Your task to perform on an android device: turn vacation reply on in the gmail app Image 0: 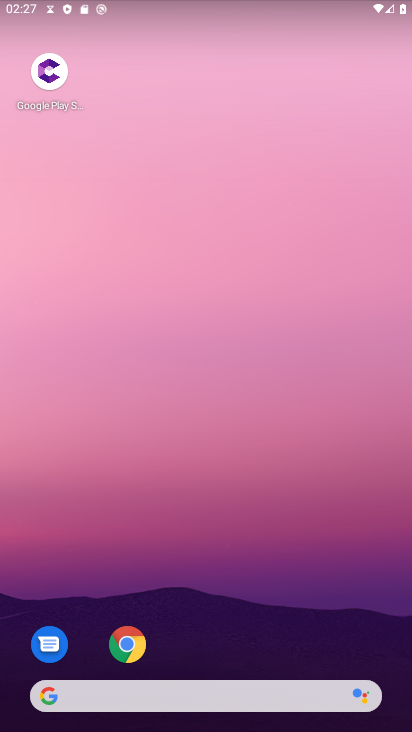
Step 0: drag from (232, 614) to (150, 169)
Your task to perform on an android device: turn vacation reply on in the gmail app Image 1: 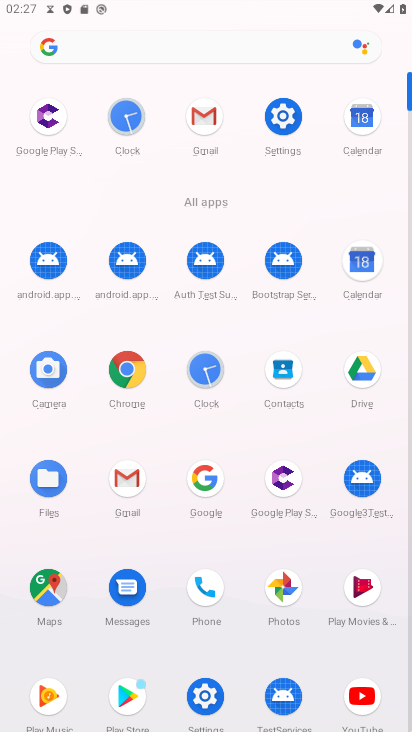
Step 1: click (125, 483)
Your task to perform on an android device: turn vacation reply on in the gmail app Image 2: 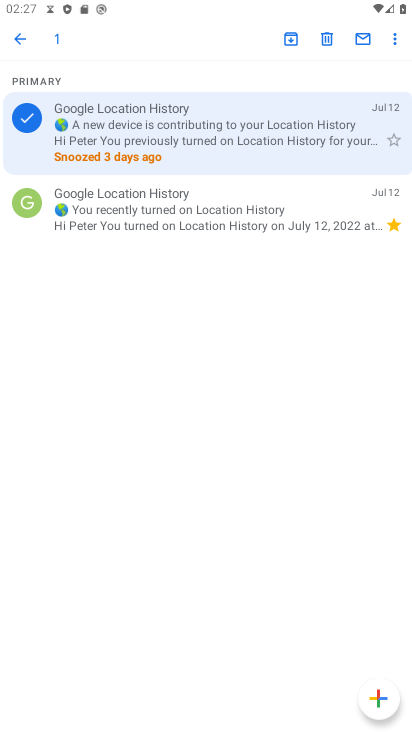
Step 2: click (9, 35)
Your task to perform on an android device: turn vacation reply on in the gmail app Image 3: 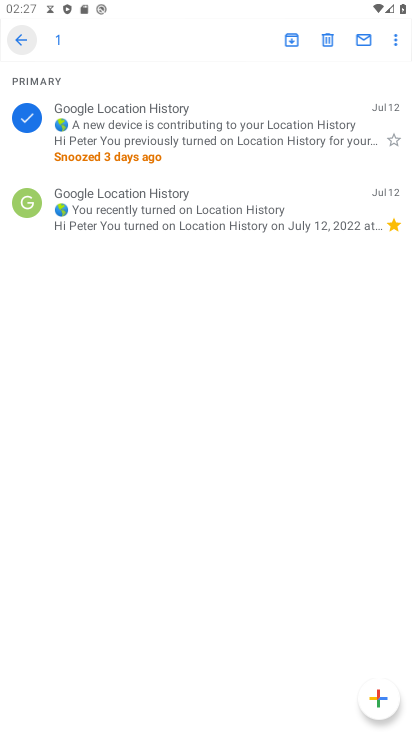
Step 3: click (17, 35)
Your task to perform on an android device: turn vacation reply on in the gmail app Image 4: 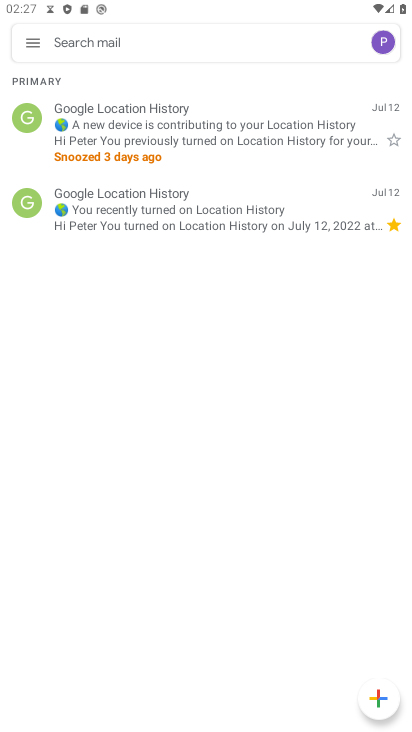
Step 4: drag from (30, 43) to (92, 466)
Your task to perform on an android device: turn vacation reply on in the gmail app Image 5: 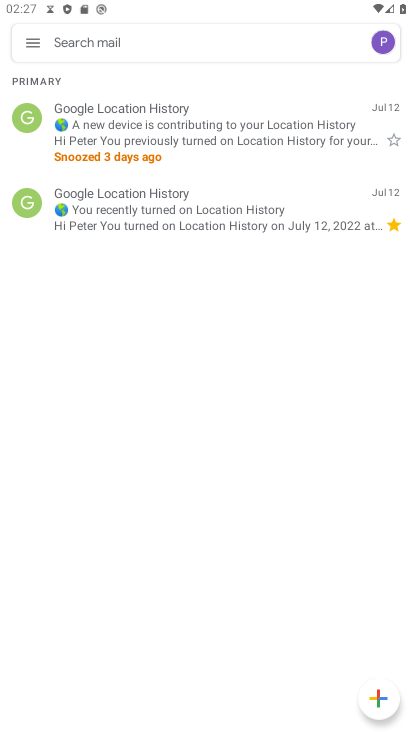
Step 5: click (32, 36)
Your task to perform on an android device: turn vacation reply on in the gmail app Image 6: 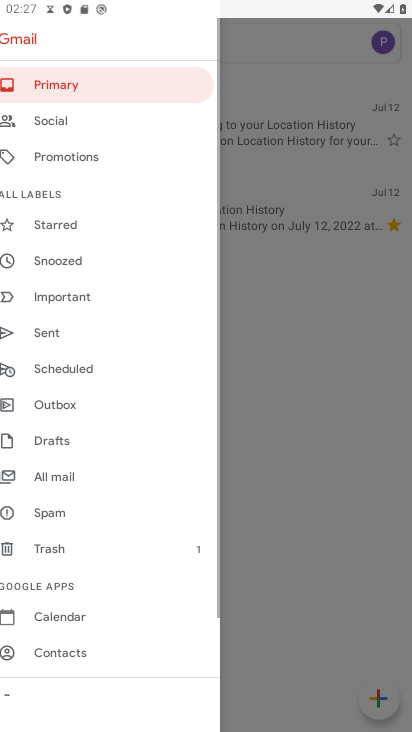
Step 6: click (29, 56)
Your task to perform on an android device: turn vacation reply on in the gmail app Image 7: 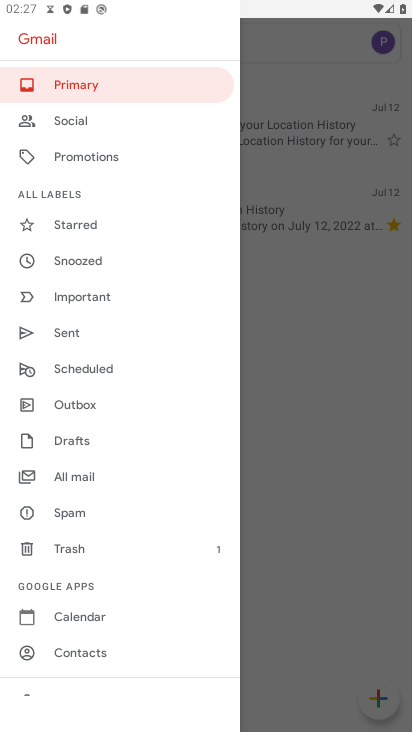
Step 7: drag from (76, 620) to (75, 248)
Your task to perform on an android device: turn vacation reply on in the gmail app Image 8: 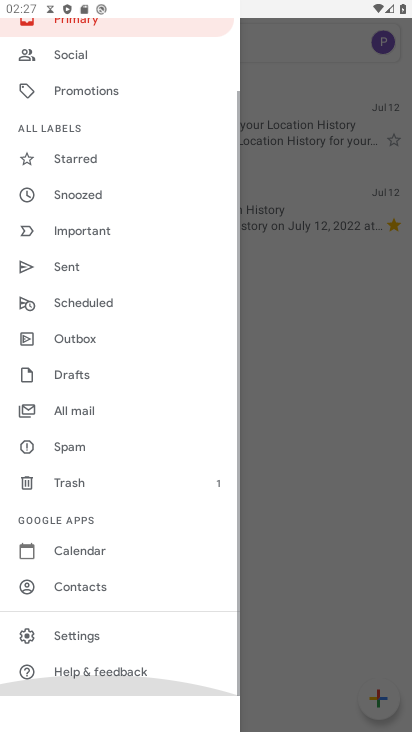
Step 8: drag from (71, 577) to (70, 314)
Your task to perform on an android device: turn vacation reply on in the gmail app Image 9: 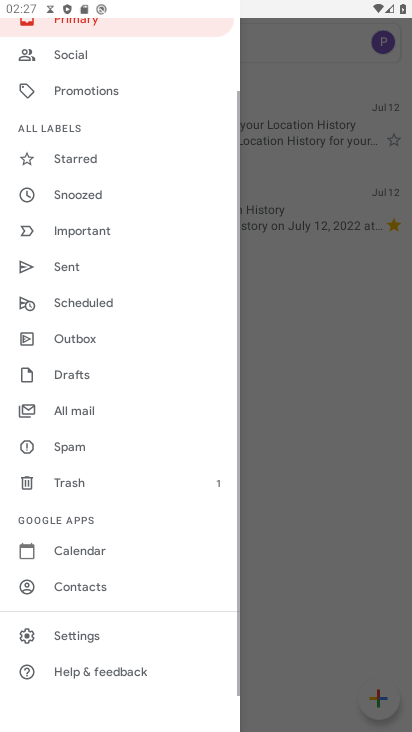
Step 9: click (84, 640)
Your task to perform on an android device: turn vacation reply on in the gmail app Image 10: 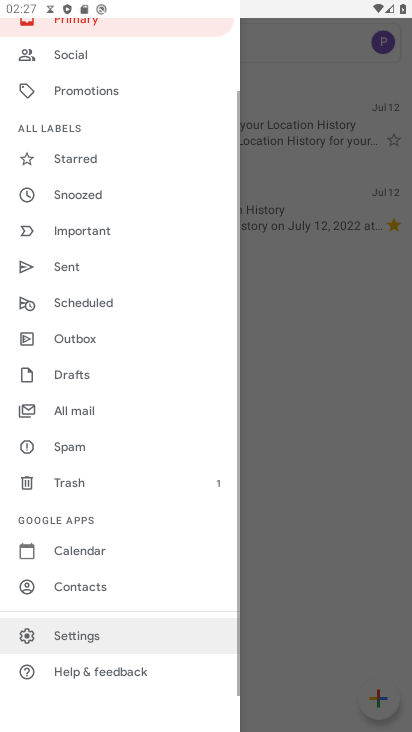
Step 10: click (78, 634)
Your task to perform on an android device: turn vacation reply on in the gmail app Image 11: 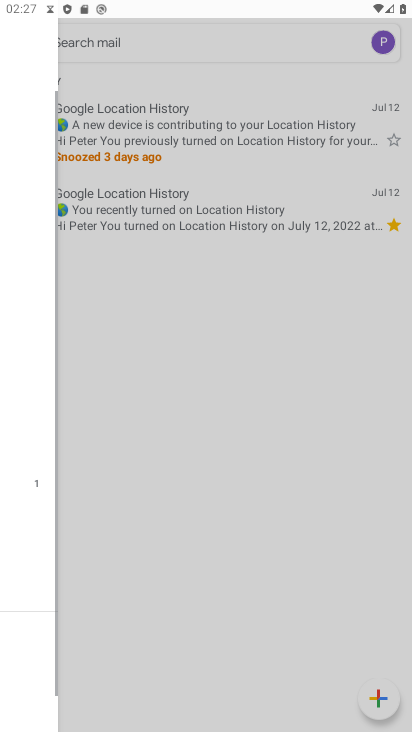
Step 11: click (78, 634)
Your task to perform on an android device: turn vacation reply on in the gmail app Image 12: 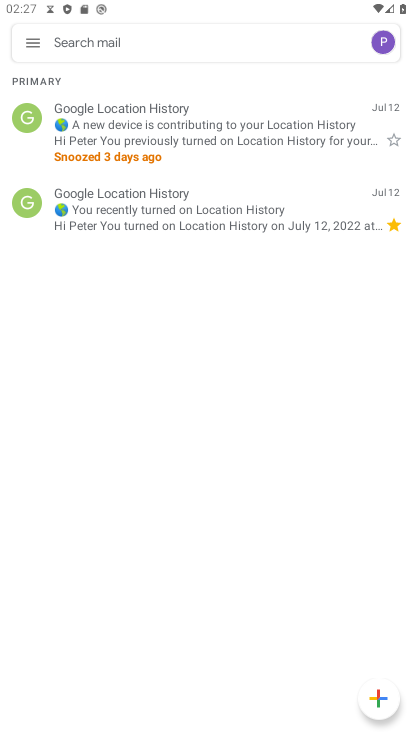
Step 12: click (78, 634)
Your task to perform on an android device: turn vacation reply on in the gmail app Image 13: 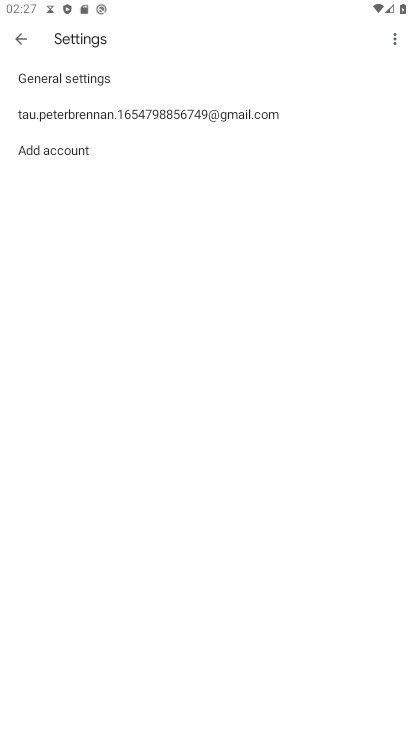
Step 13: click (136, 123)
Your task to perform on an android device: turn vacation reply on in the gmail app Image 14: 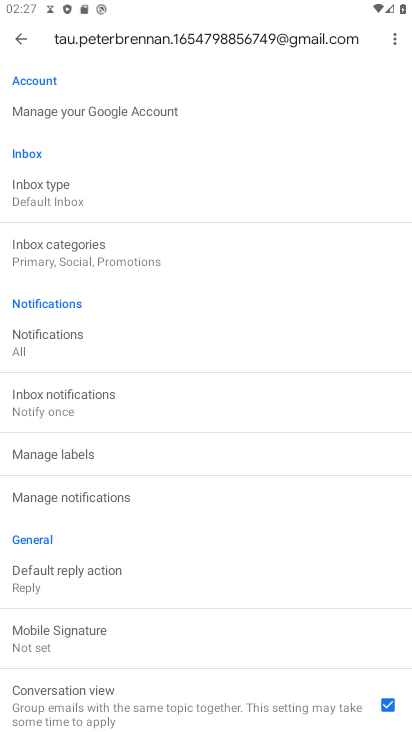
Step 14: drag from (84, 655) to (59, 330)
Your task to perform on an android device: turn vacation reply on in the gmail app Image 15: 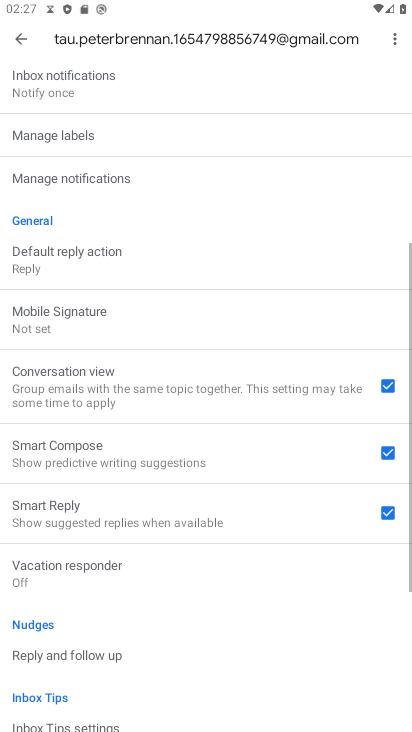
Step 15: drag from (100, 561) to (99, 381)
Your task to perform on an android device: turn vacation reply on in the gmail app Image 16: 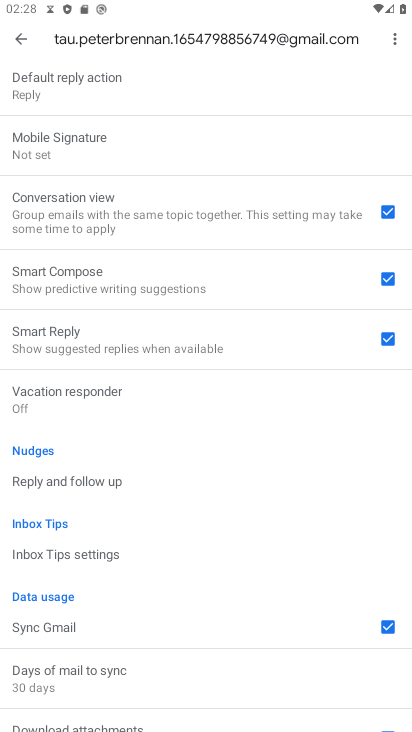
Step 16: click (82, 390)
Your task to perform on an android device: turn vacation reply on in the gmail app Image 17: 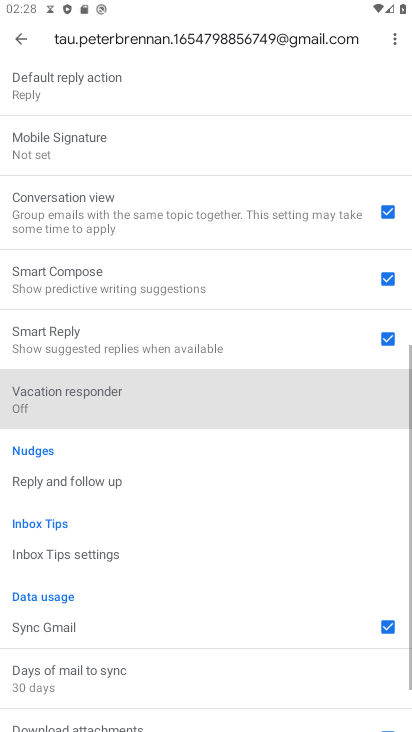
Step 17: click (82, 391)
Your task to perform on an android device: turn vacation reply on in the gmail app Image 18: 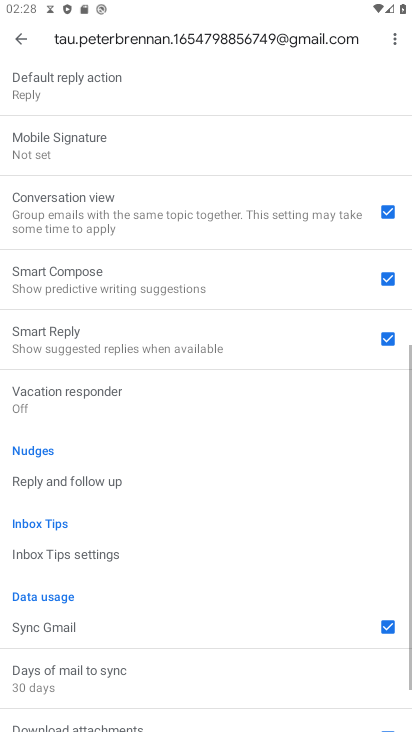
Step 18: click (82, 391)
Your task to perform on an android device: turn vacation reply on in the gmail app Image 19: 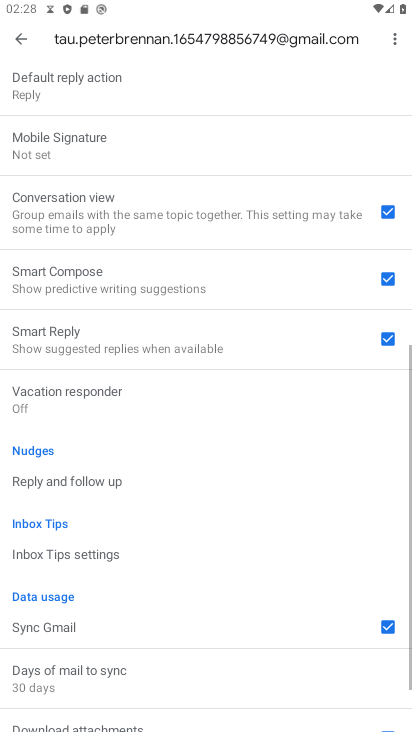
Step 19: click (82, 391)
Your task to perform on an android device: turn vacation reply on in the gmail app Image 20: 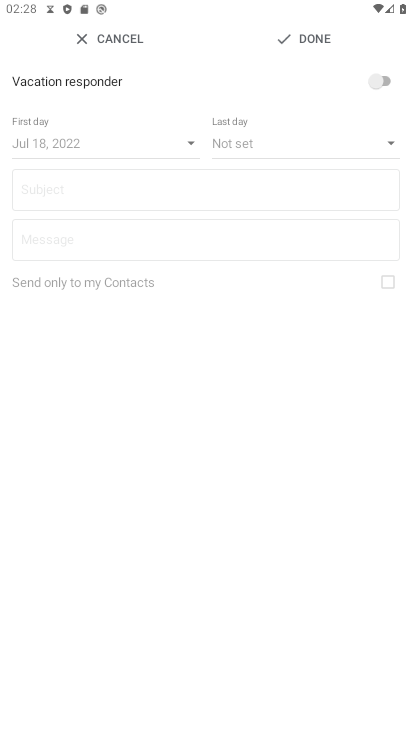
Step 20: click (373, 76)
Your task to perform on an android device: turn vacation reply on in the gmail app Image 21: 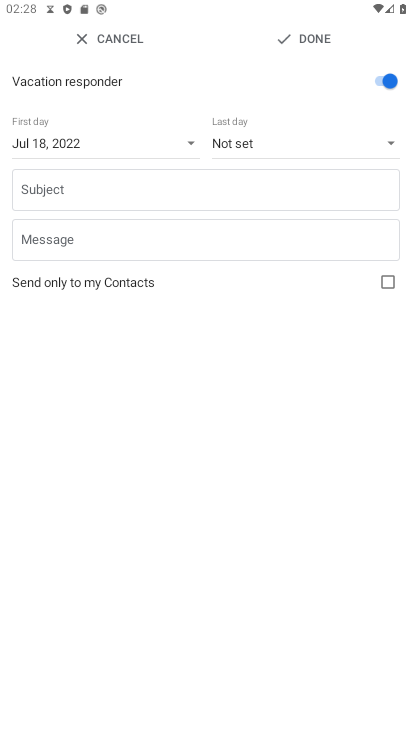
Step 21: task complete